Your task to perform on an android device: open device folders in google photos Image 0: 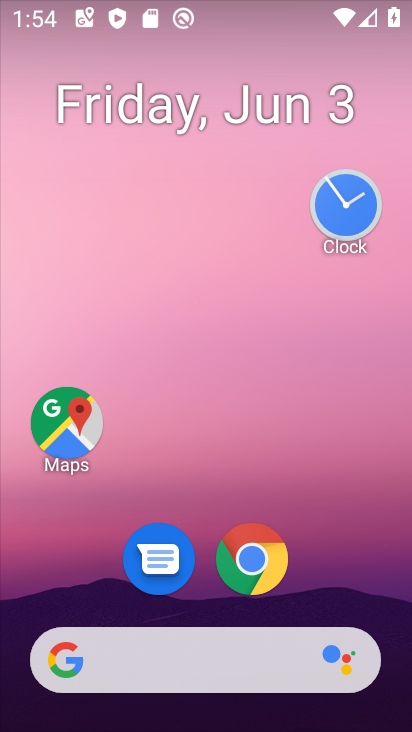
Step 0: drag from (322, 578) to (321, 233)
Your task to perform on an android device: open device folders in google photos Image 1: 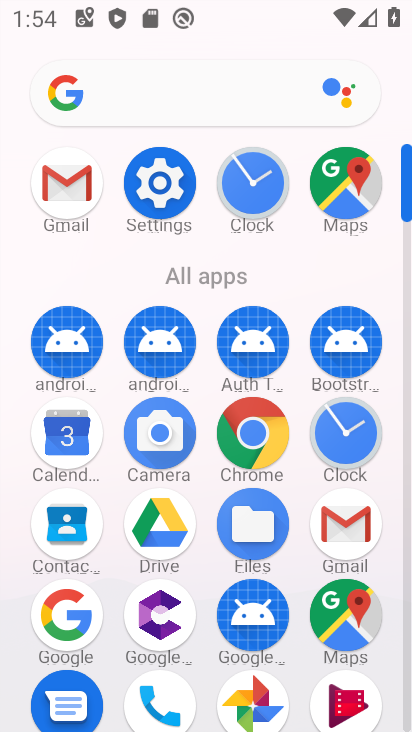
Step 1: click (237, 703)
Your task to perform on an android device: open device folders in google photos Image 2: 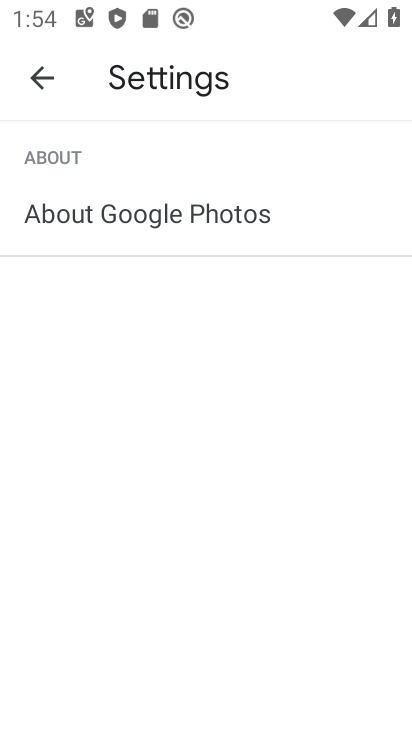
Step 2: click (53, 83)
Your task to perform on an android device: open device folders in google photos Image 3: 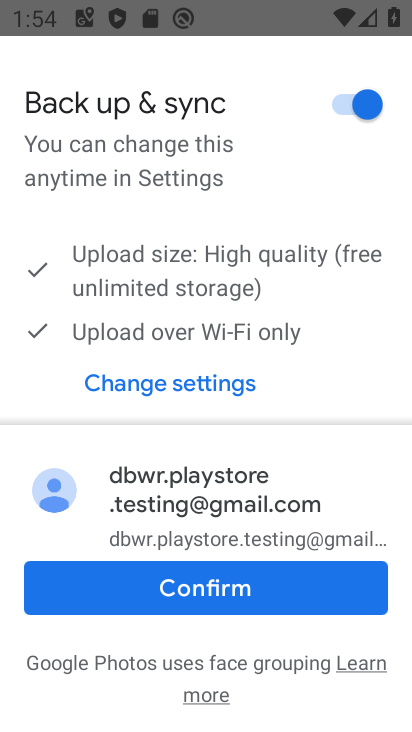
Step 3: click (133, 608)
Your task to perform on an android device: open device folders in google photos Image 4: 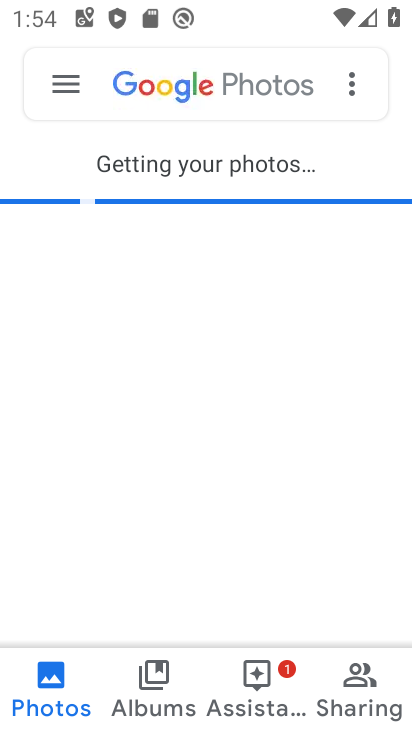
Step 4: click (76, 83)
Your task to perform on an android device: open device folders in google photos Image 5: 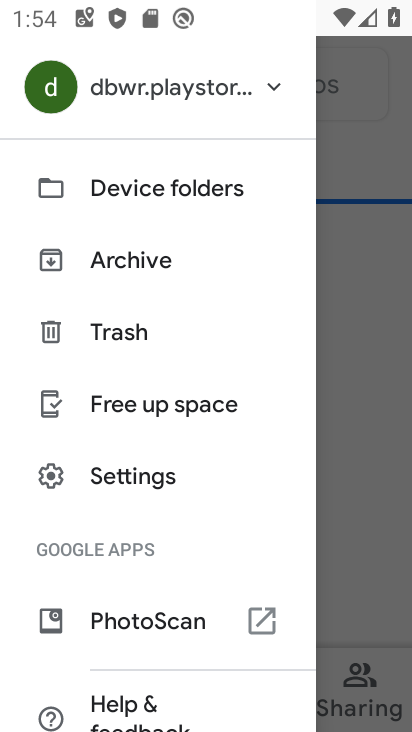
Step 5: click (99, 187)
Your task to perform on an android device: open device folders in google photos Image 6: 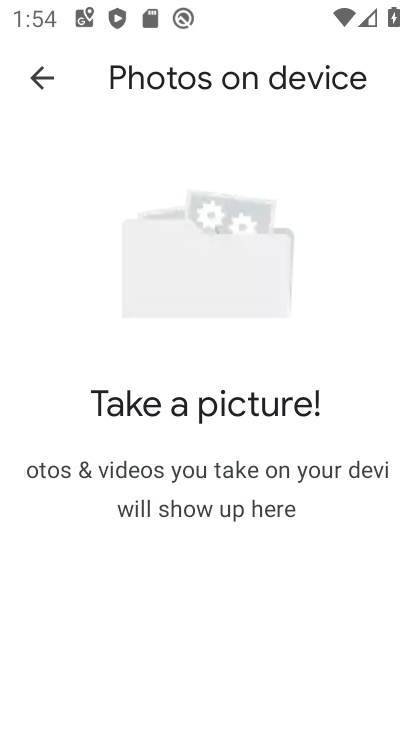
Step 6: task complete